Your task to perform on an android device: Go to Google maps Image 0: 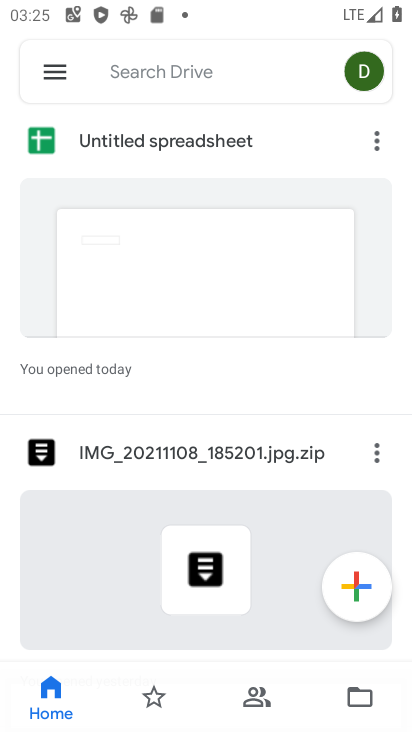
Step 0: press home button
Your task to perform on an android device: Go to Google maps Image 1: 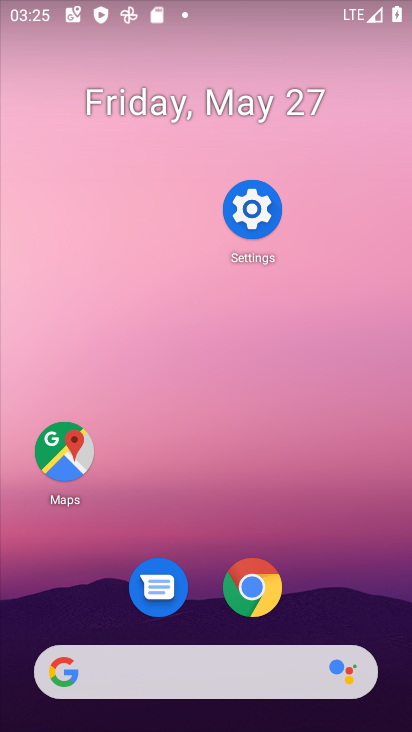
Step 1: click (64, 439)
Your task to perform on an android device: Go to Google maps Image 2: 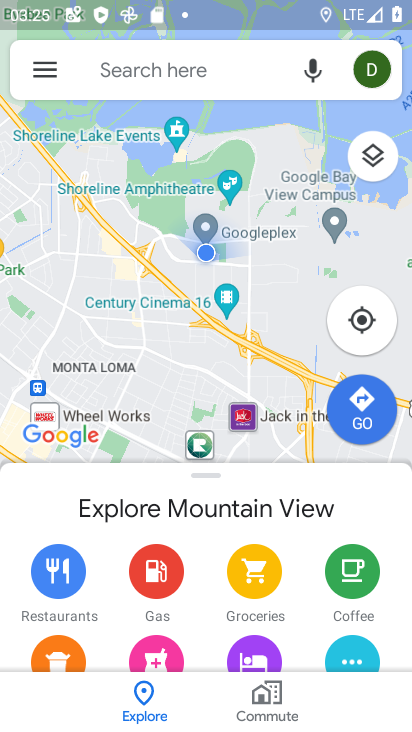
Step 2: task complete